Your task to perform on an android device: read, delete, or share a saved page in the chrome app Image 0: 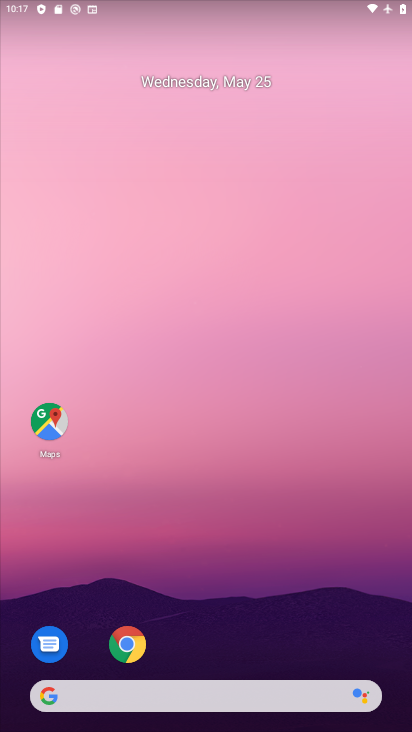
Step 0: click (135, 648)
Your task to perform on an android device: read, delete, or share a saved page in the chrome app Image 1: 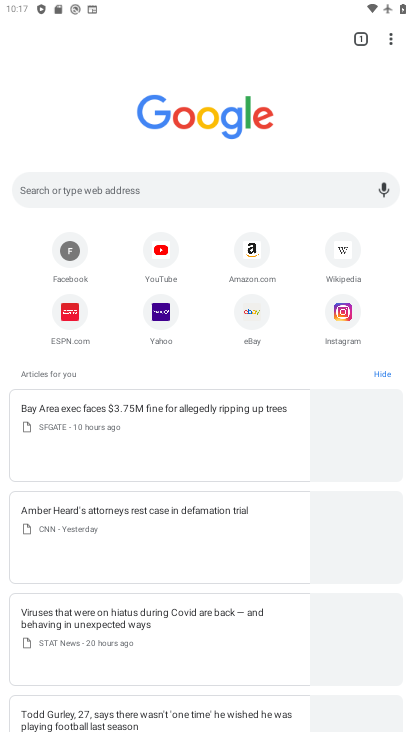
Step 1: click (383, 39)
Your task to perform on an android device: read, delete, or share a saved page in the chrome app Image 2: 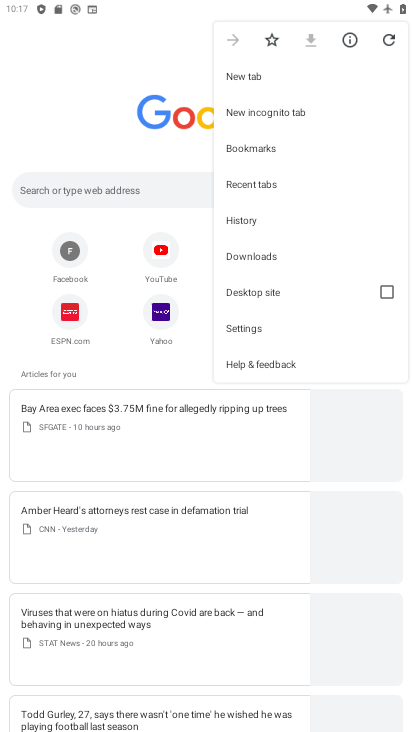
Step 2: click (251, 259)
Your task to perform on an android device: read, delete, or share a saved page in the chrome app Image 3: 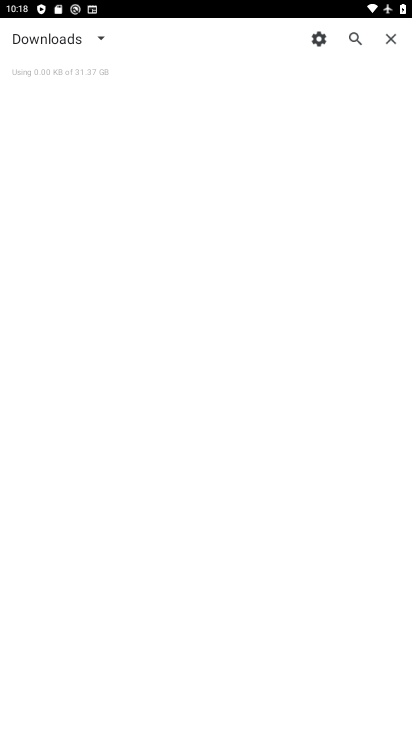
Step 3: task complete